Your task to perform on an android device: Open ESPN.com Image 0: 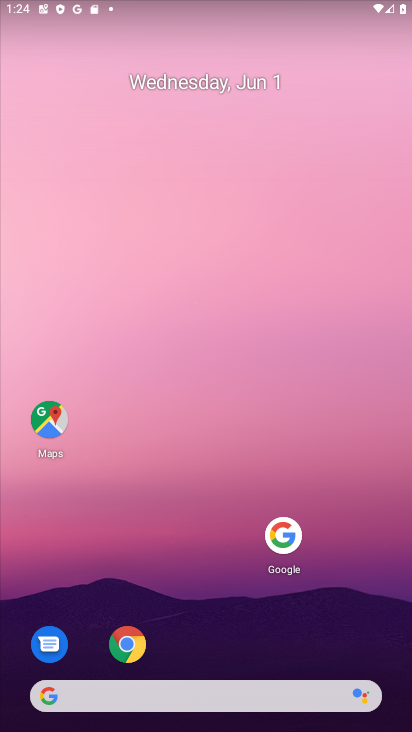
Step 0: click (126, 644)
Your task to perform on an android device: Open ESPN.com Image 1: 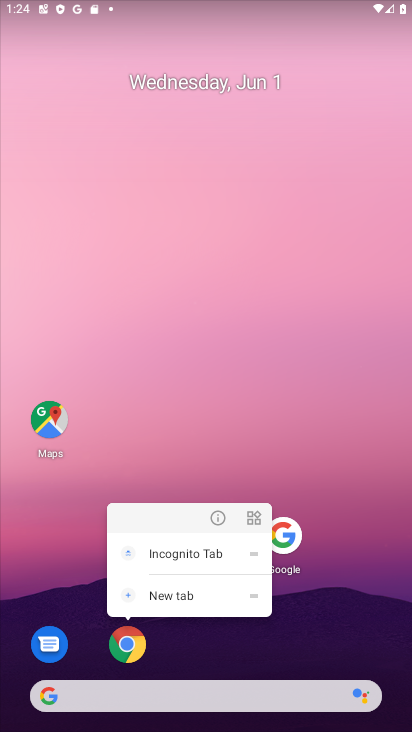
Step 1: click (126, 644)
Your task to perform on an android device: Open ESPN.com Image 2: 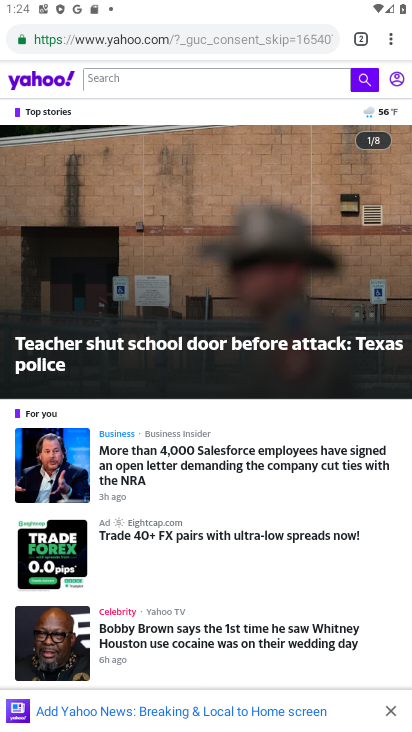
Step 2: drag from (392, 39) to (262, 128)
Your task to perform on an android device: Open ESPN.com Image 3: 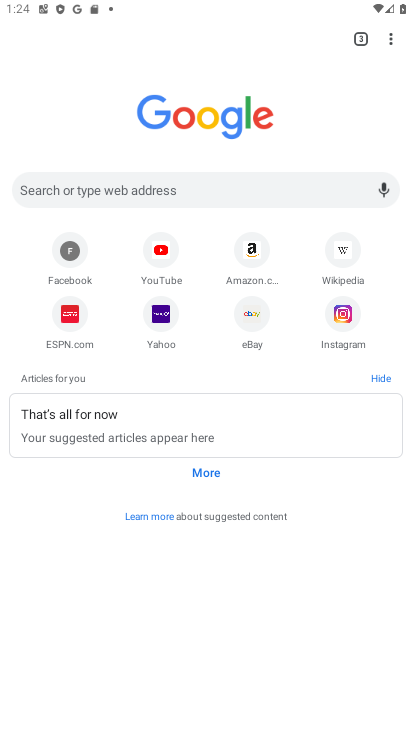
Step 3: click (70, 311)
Your task to perform on an android device: Open ESPN.com Image 4: 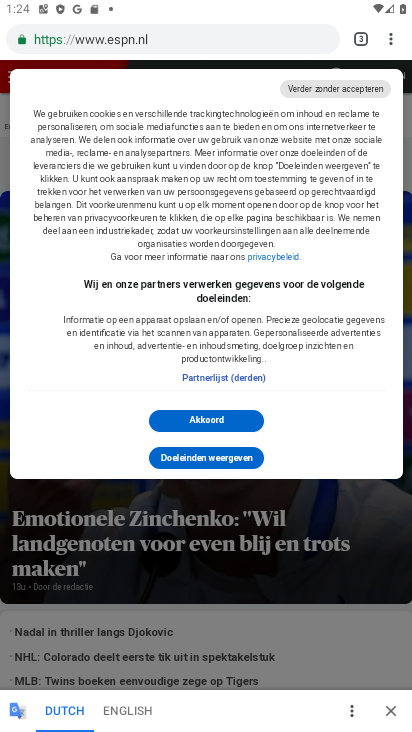
Step 4: click (137, 714)
Your task to perform on an android device: Open ESPN.com Image 5: 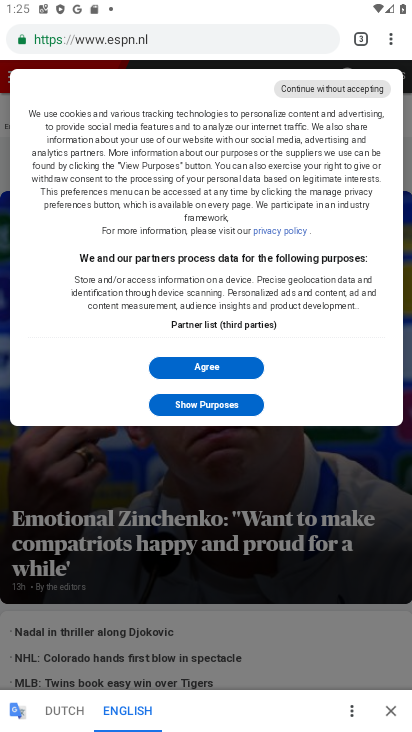
Step 5: click (218, 367)
Your task to perform on an android device: Open ESPN.com Image 6: 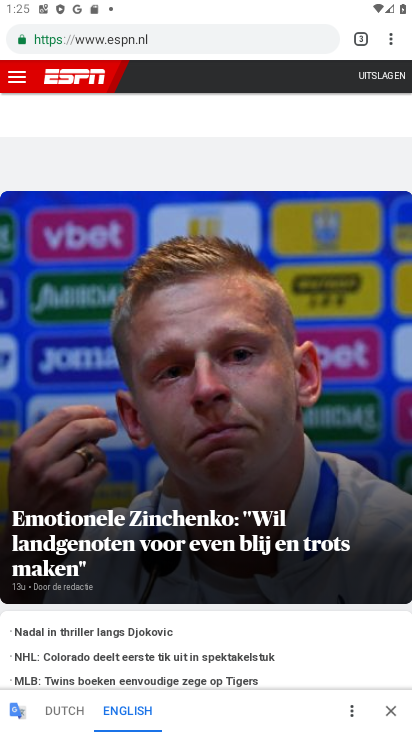
Step 6: task complete